Your task to perform on an android device: delete a single message in the gmail app Image 0: 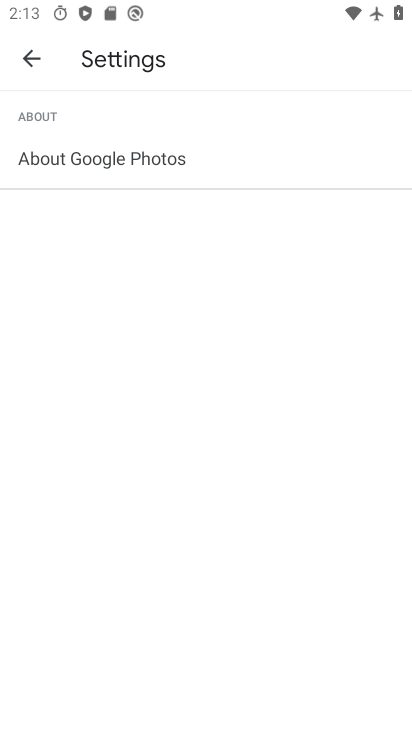
Step 0: press home button
Your task to perform on an android device: delete a single message in the gmail app Image 1: 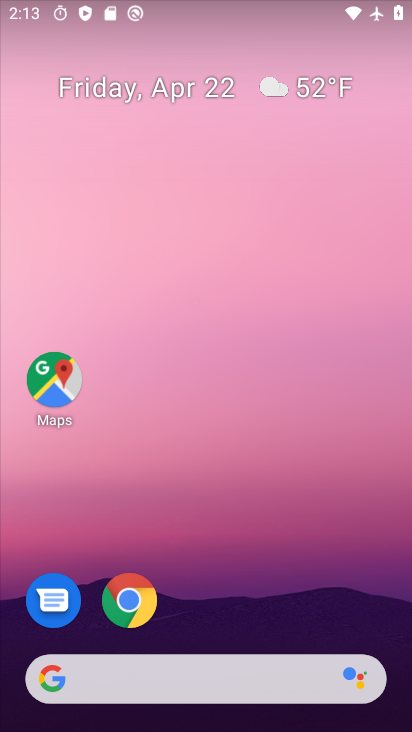
Step 1: drag from (219, 725) to (185, 120)
Your task to perform on an android device: delete a single message in the gmail app Image 2: 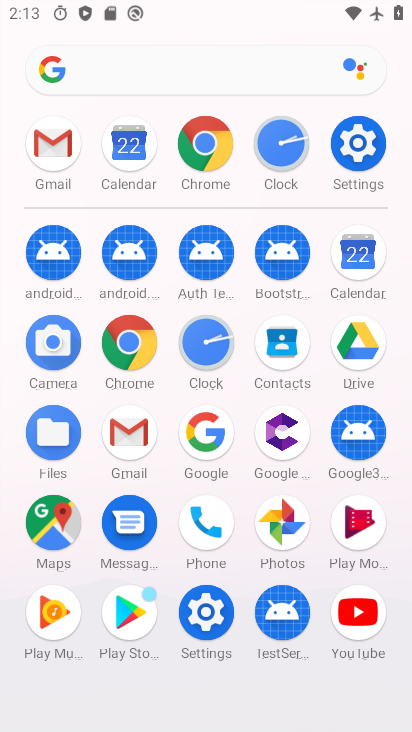
Step 2: click (47, 141)
Your task to perform on an android device: delete a single message in the gmail app Image 3: 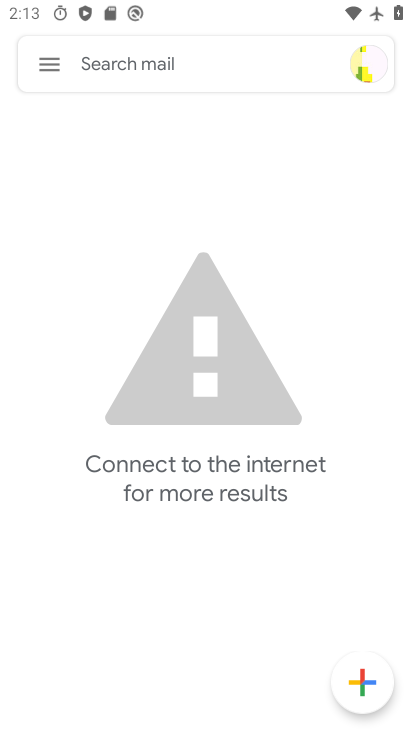
Step 3: task complete